Your task to perform on an android device: Open the map Image 0: 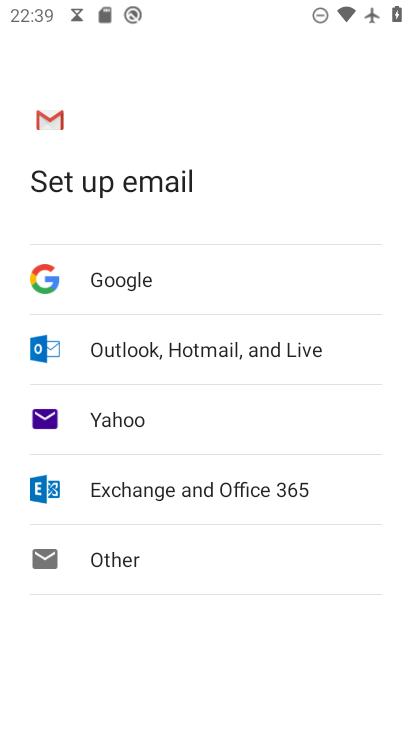
Step 0: press home button
Your task to perform on an android device: Open the map Image 1: 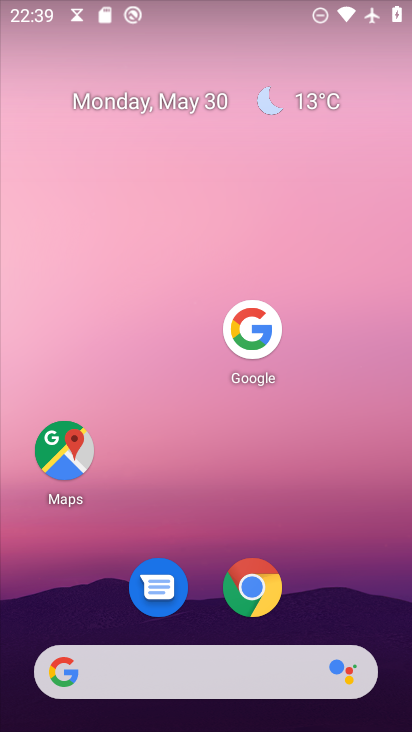
Step 1: click (61, 449)
Your task to perform on an android device: Open the map Image 2: 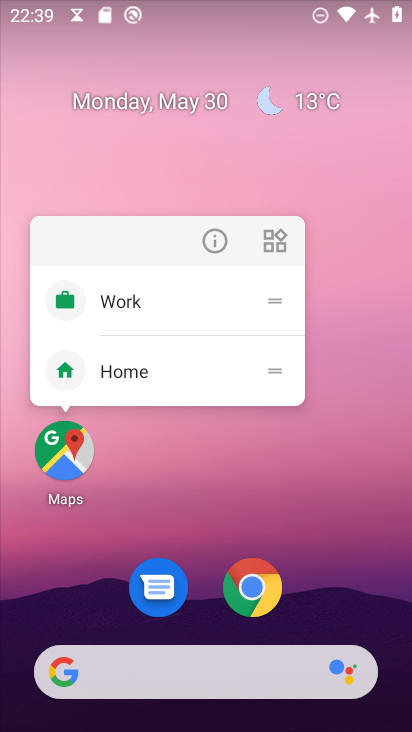
Step 2: click (71, 453)
Your task to perform on an android device: Open the map Image 3: 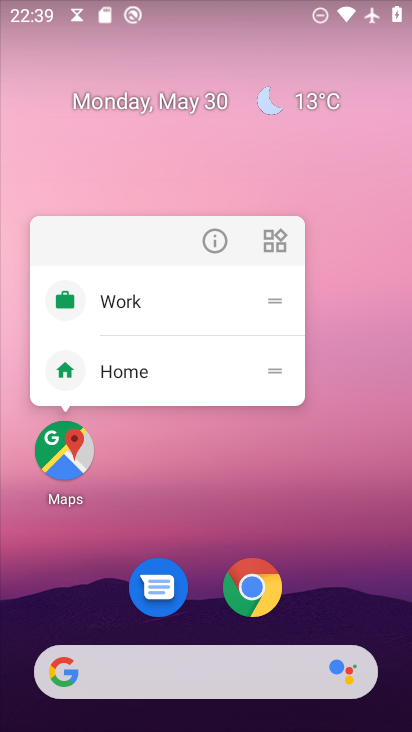
Step 3: click (56, 453)
Your task to perform on an android device: Open the map Image 4: 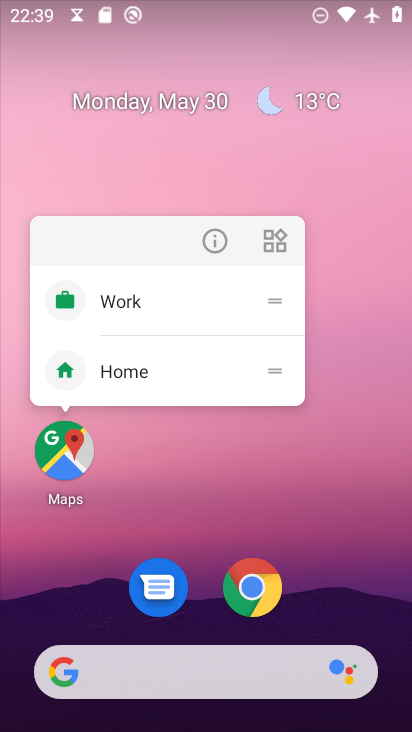
Step 4: click (68, 467)
Your task to perform on an android device: Open the map Image 5: 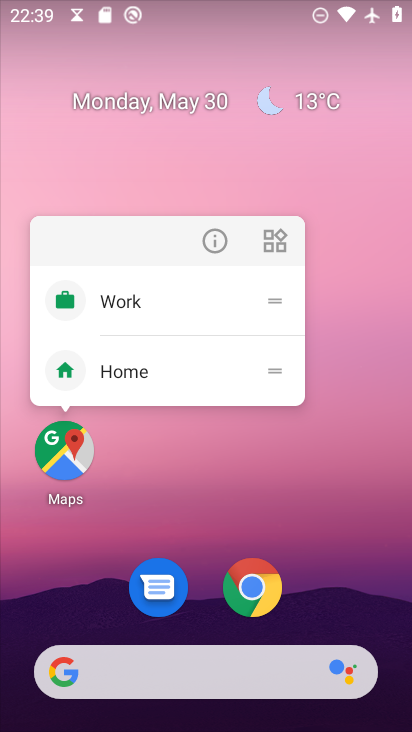
Step 5: click (68, 451)
Your task to perform on an android device: Open the map Image 6: 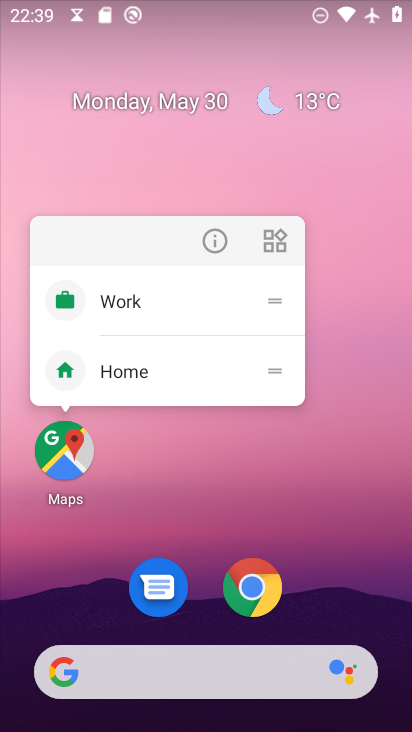
Step 6: click (66, 450)
Your task to perform on an android device: Open the map Image 7: 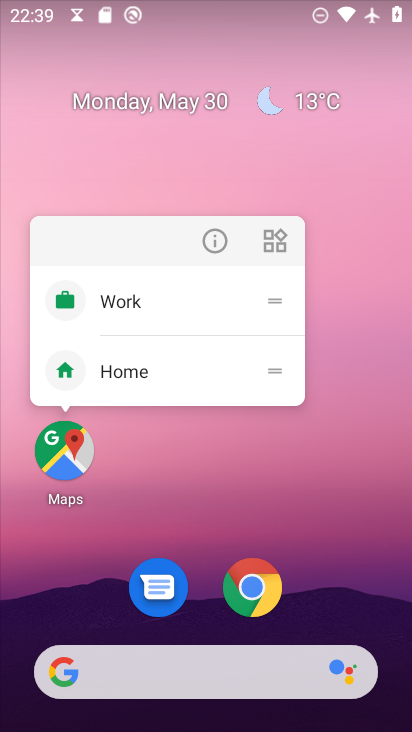
Step 7: click (63, 449)
Your task to perform on an android device: Open the map Image 8: 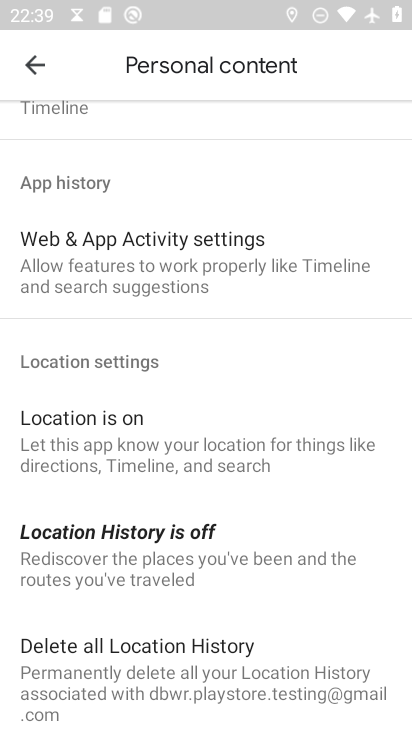
Step 8: click (36, 64)
Your task to perform on an android device: Open the map Image 9: 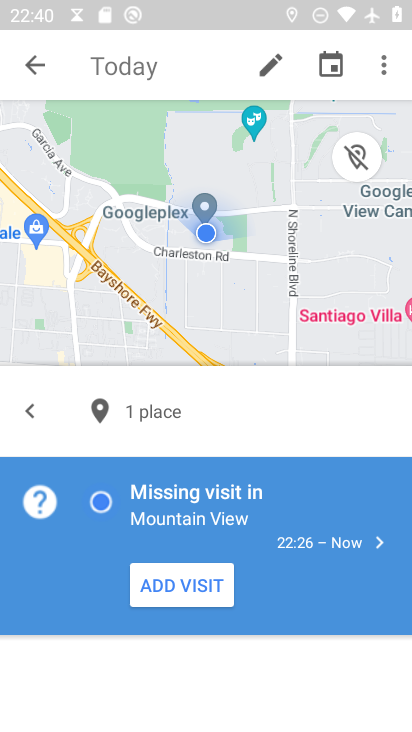
Step 9: click (36, 64)
Your task to perform on an android device: Open the map Image 10: 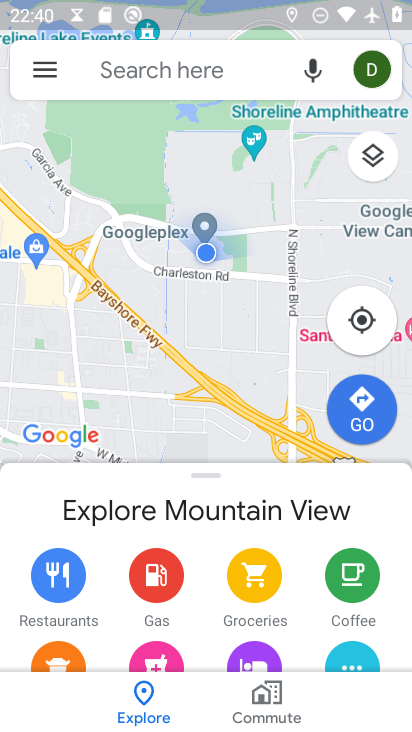
Step 10: task complete